Your task to perform on an android device: open app "Move to iOS" (install if not already installed) and go to login screen Image 0: 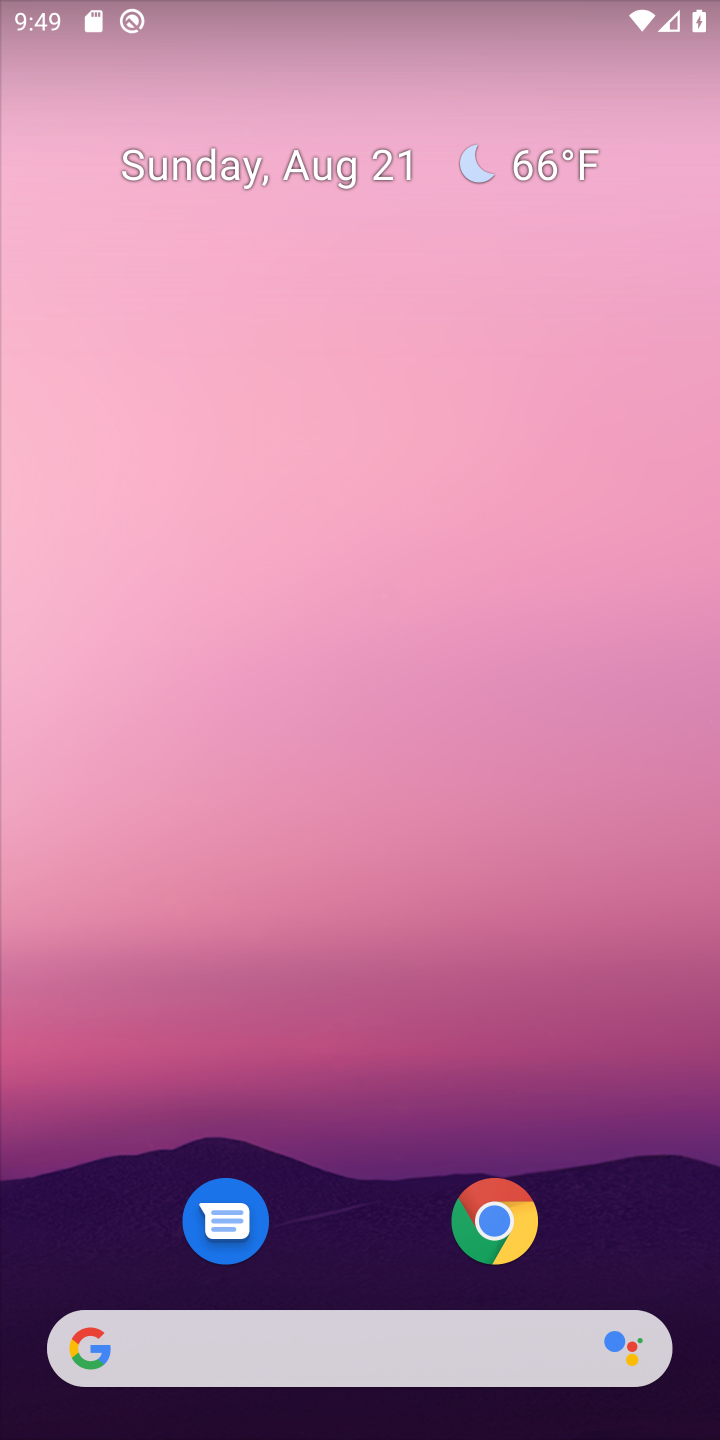
Step 0: drag from (341, 1038) to (243, 270)
Your task to perform on an android device: open app "Move to iOS" (install if not already installed) and go to login screen Image 1: 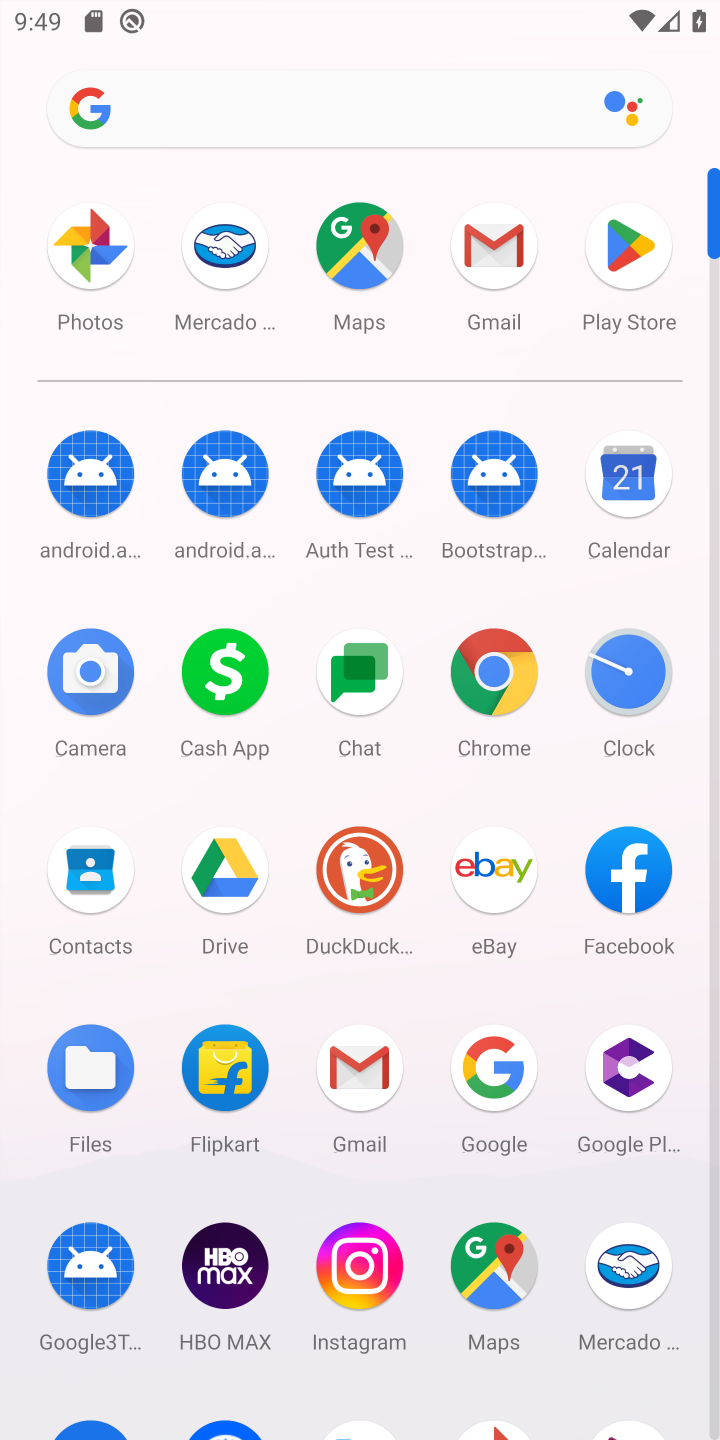
Step 1: click (596, 231)
Your task to perform on an android device: open app "Move to iOS" (install if not already installed) and go to login screen Image 2: 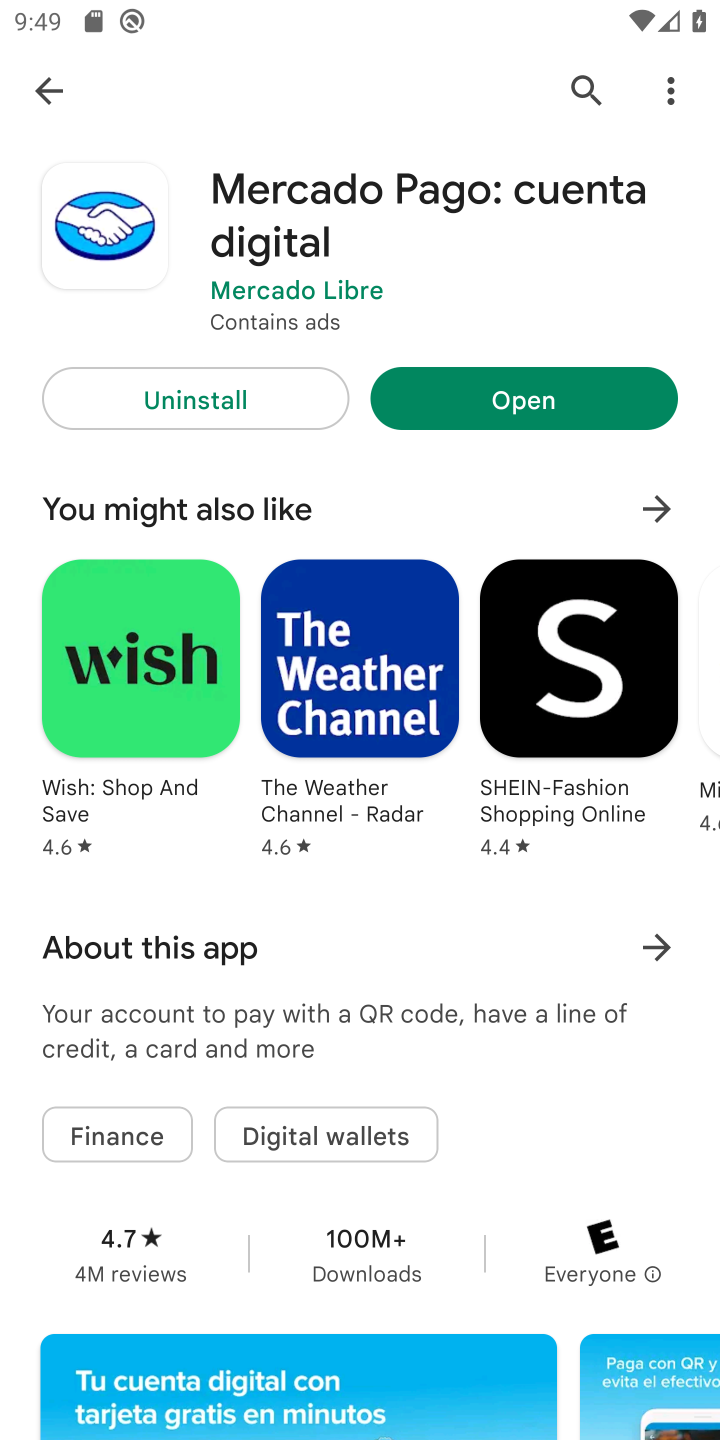
Step 2: click (567, 82)
Your task to perform on an android device: open app "Move to iOS" (install if not already installed) and go to login screen Image 3: 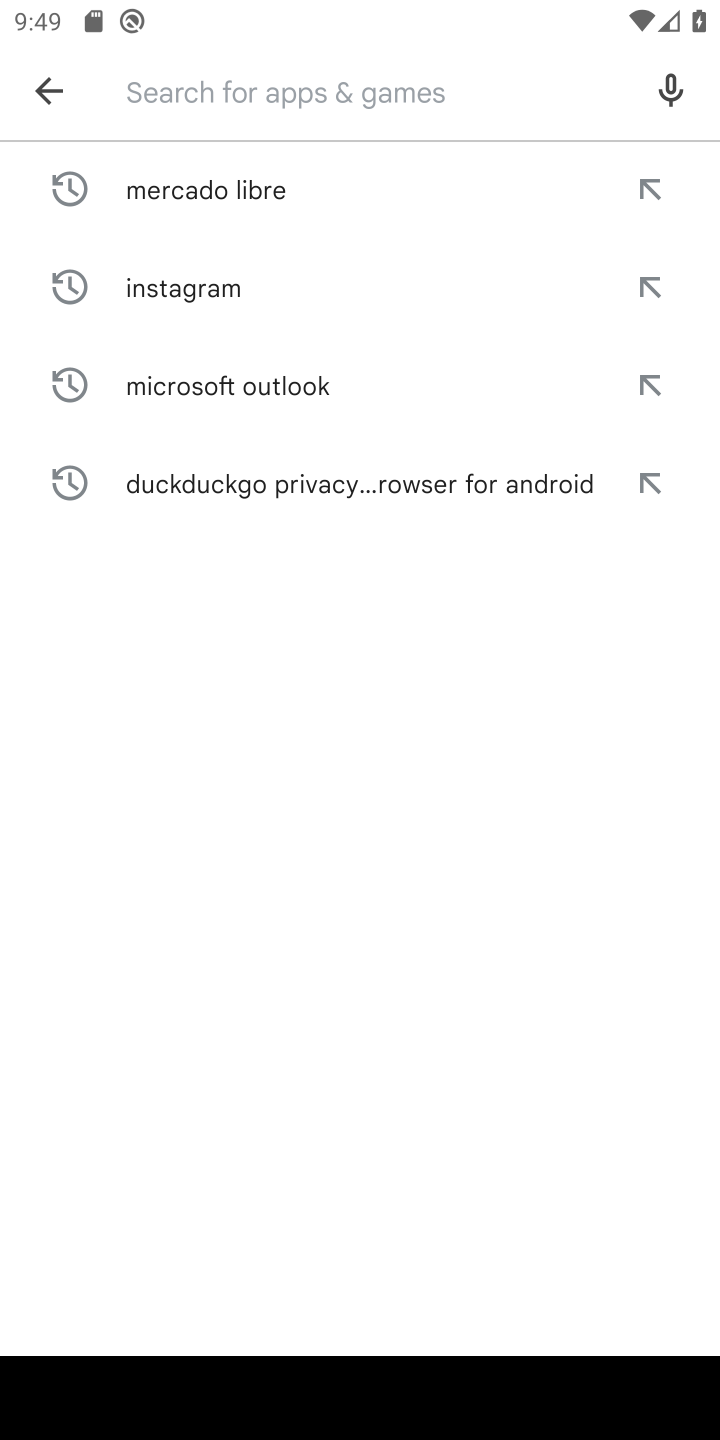
Step 3: type "Move to iOS"
Your task to perform on an android device: open app "Move to iOS" (install if not already installed) and go to login screen Image 4: 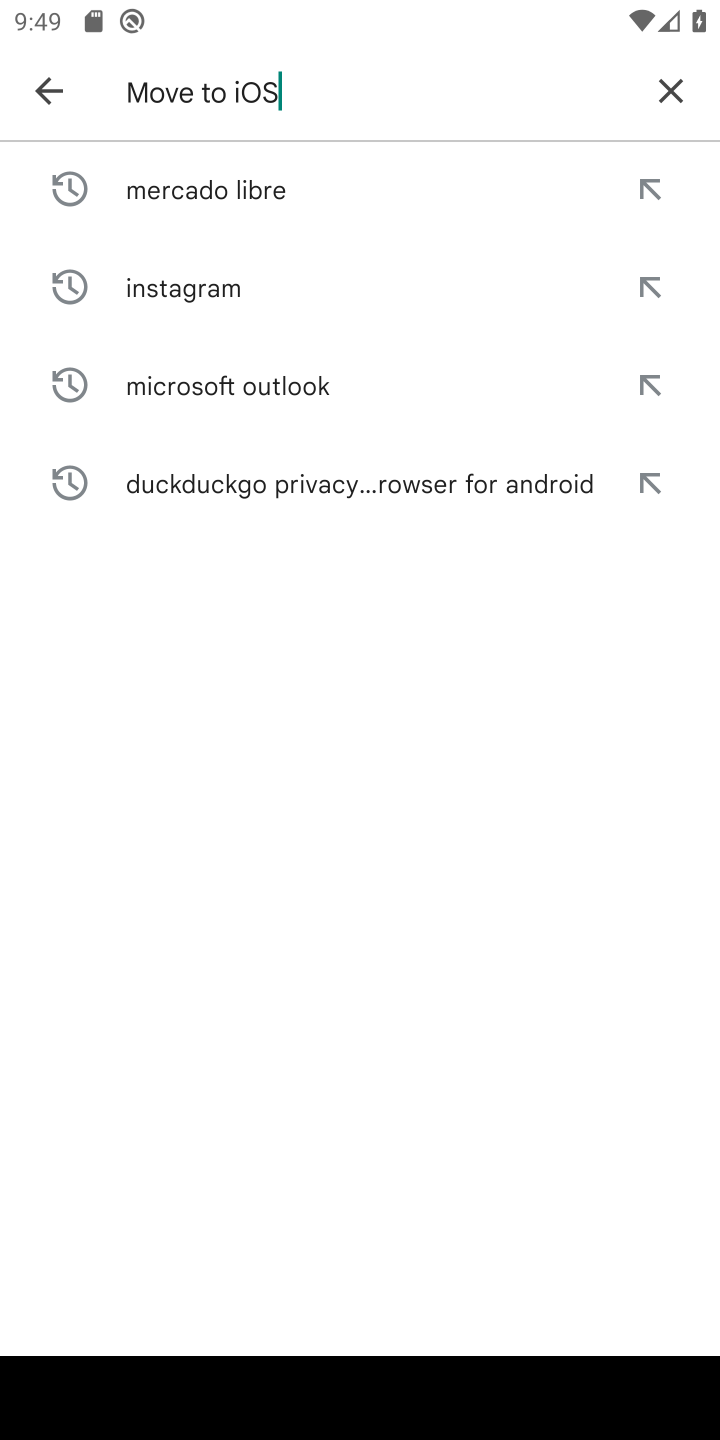
Step 4: type ""
Your task to perform on an android device: open app "Move to iOS" (install if not already installed) and go to login screen Image 5: 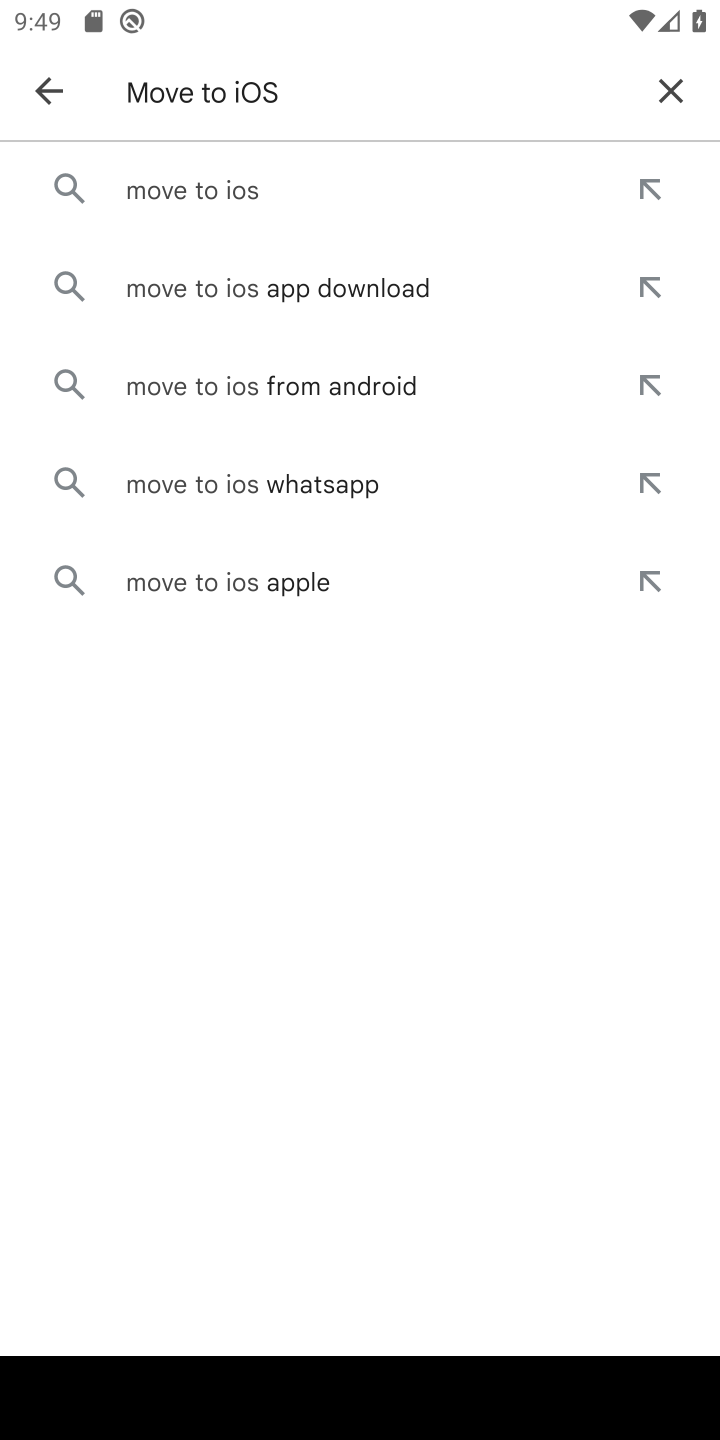
Step 5: click (140, 186)
Your task to perform on an android device: open app "Move to iOS" (install if not already installed) and go to login screen Image 6: 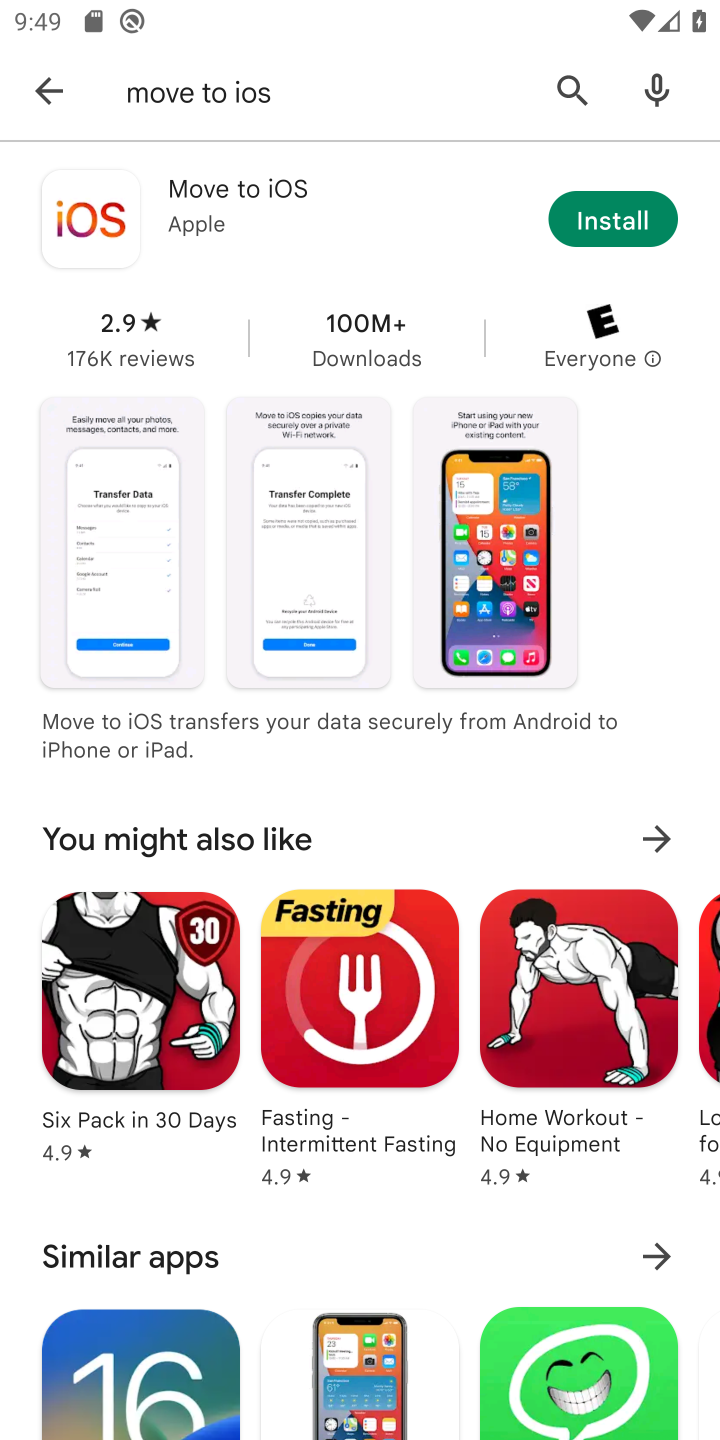
Step 6: click (617, 204)
Your task to perform on an android device: open app "Move to iOS" (install if not already installed) and go to login screen Image 7: 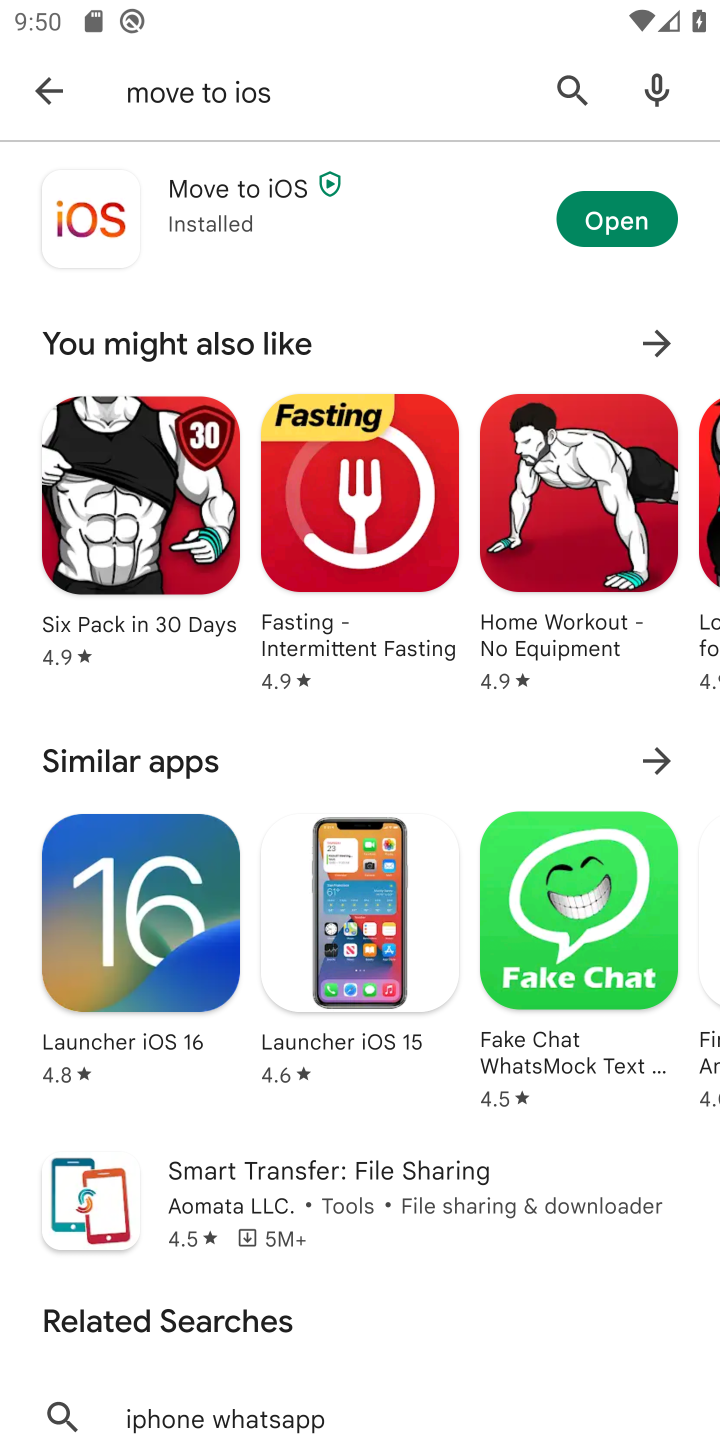
Step 7: click (604, 219)
Your task to perform on an android device: open app "Move to iOS" (install if not already installed) and go to login screen Image 8: 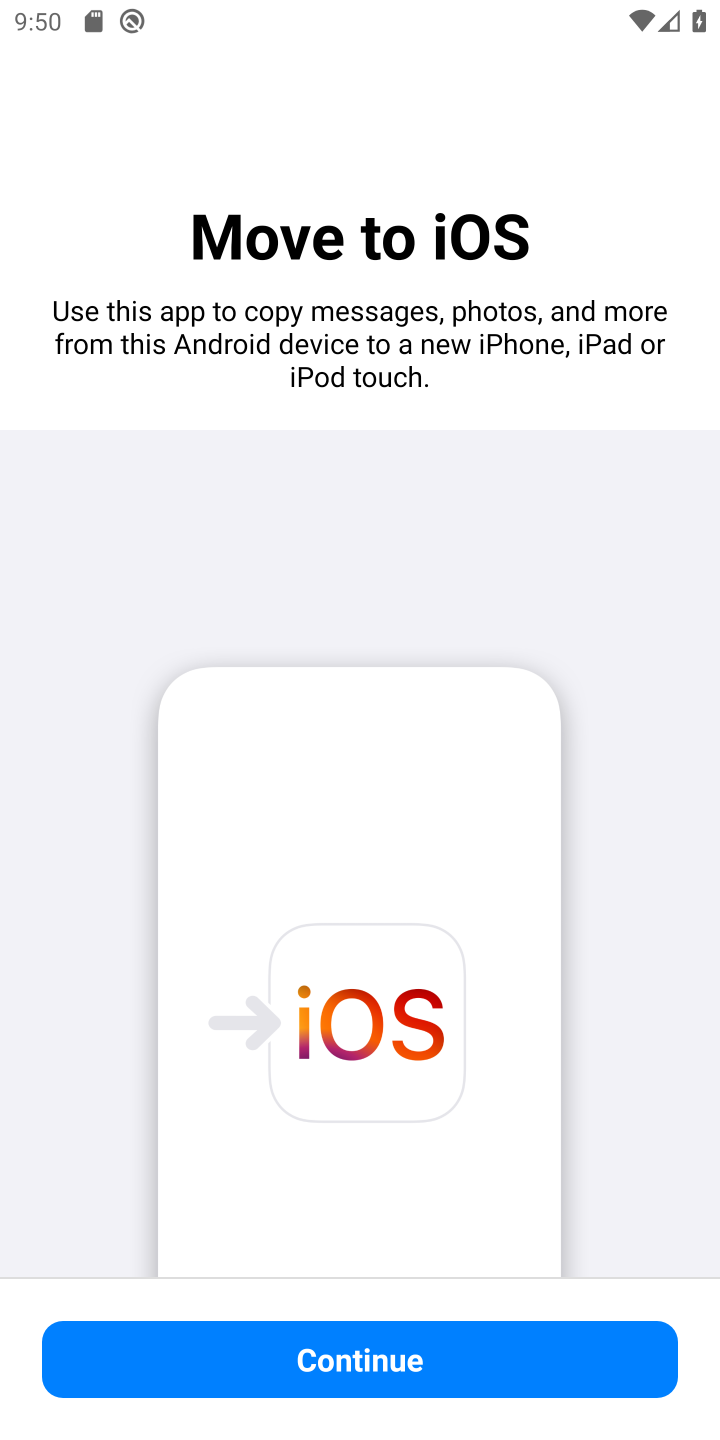
Step 8: task complete